Your task to perform on an android device: Set the phone to "Do not disturb". Image 0: 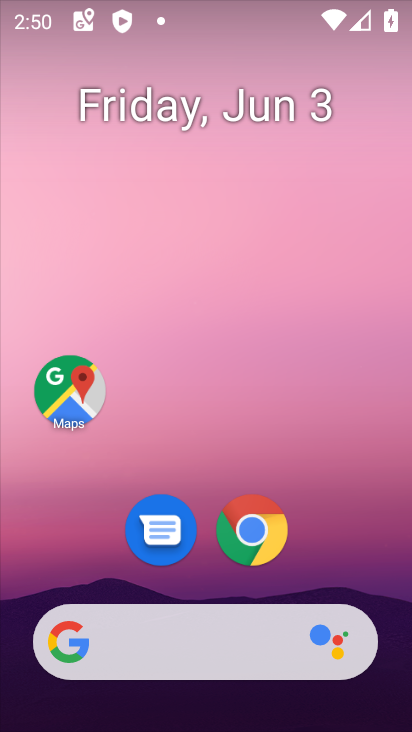
Step 0: drag from (357, 514) to (178, 64)
Your task to perform on an android device: Set the phone to "Do not disturb". Image 1: 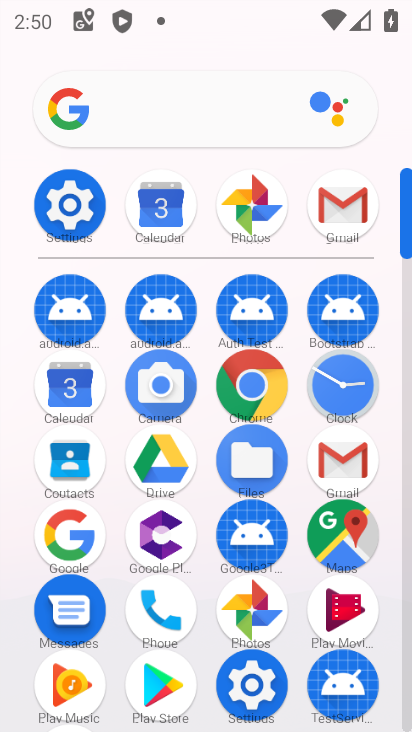
Step 1: click (62, 211)
Your task to perform on an android device: Set the phone to "Do not disturb". Image 2: 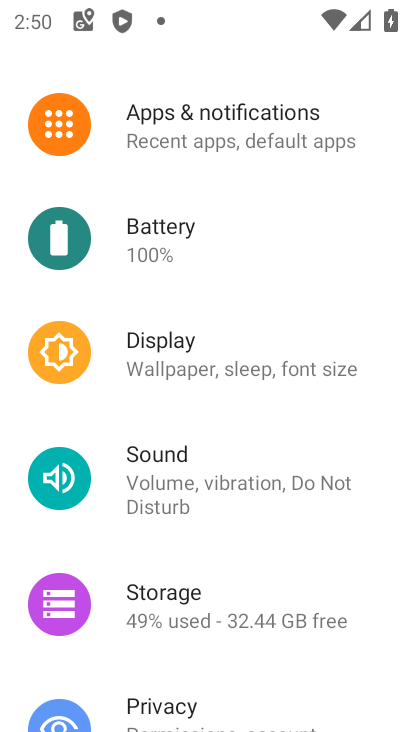
Step 2: click (159, 465)
Your task to perform on an android device: Set the phone to "Do not disturb". Image 3: 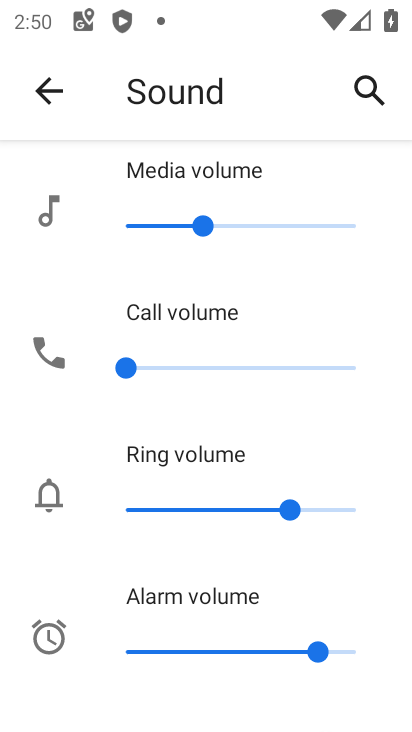
Step 3: drag from (218, 541) to (217, 369)
Your task to perform on an android device: Set the phone to "Do not disturb". Image 4: 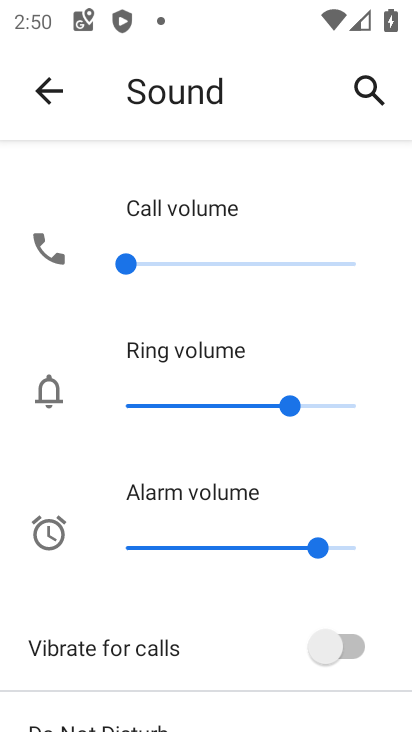
Step 4: click (213, 370)
Your task to perform on an android device: Set the phone to "Do not disturb". Image 5: 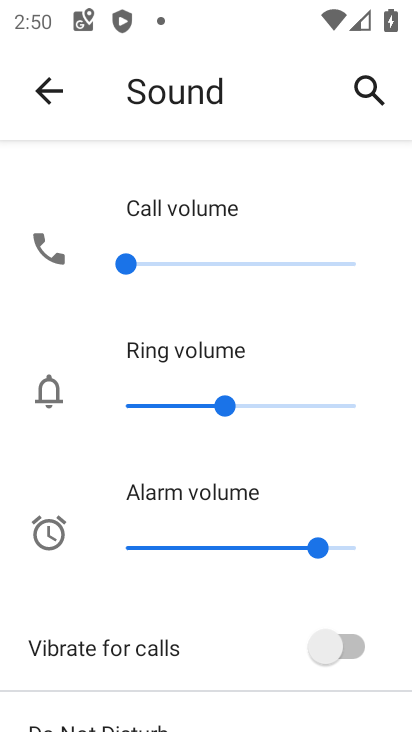
Step 5: drag from (179, 562) to (172, 392)
Your task to perform on an android device: Set the phone to "Do not disturb". Image 6: 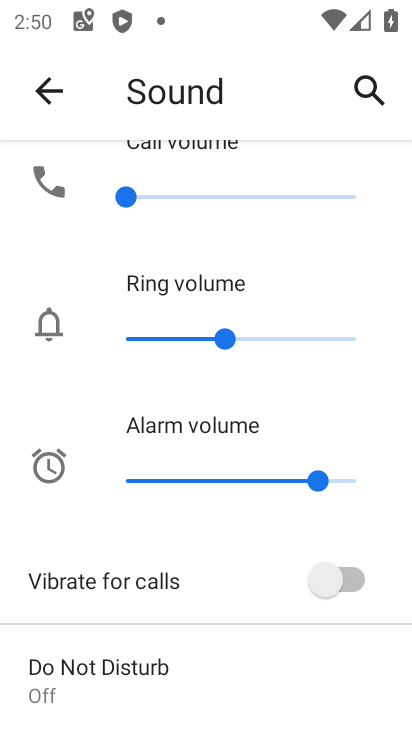
Step 6: click (223, 334)
Your task to perform on an android device: Set the phone to "Do not disturb". Image 7: 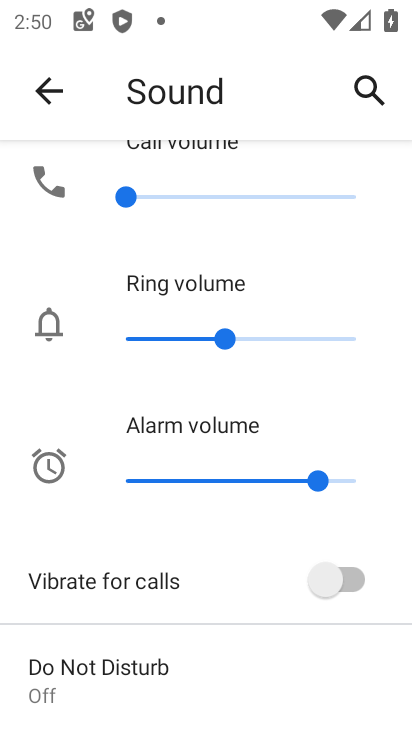
Step 7: click (73, 667)
Your task to perform on an android device: Set the phone to "Do not disturb". Image 8: 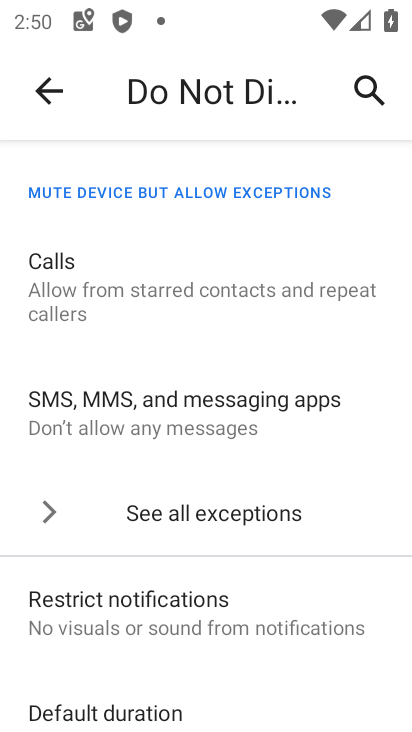
Step 8: drag from (223, 648) to (188, 343)
Your task to perform on an android device: Set the phone to "Do not disturb". Image 9: 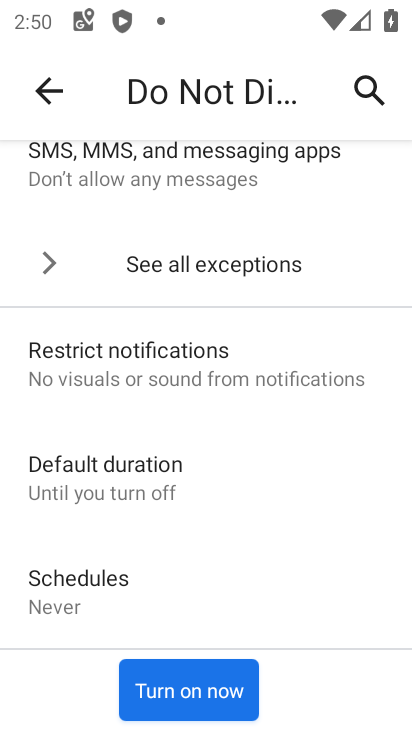
Step 9: click (182, 688)
Your task to perform on an android device: Set the phone to "Do not disturb". Image 10: 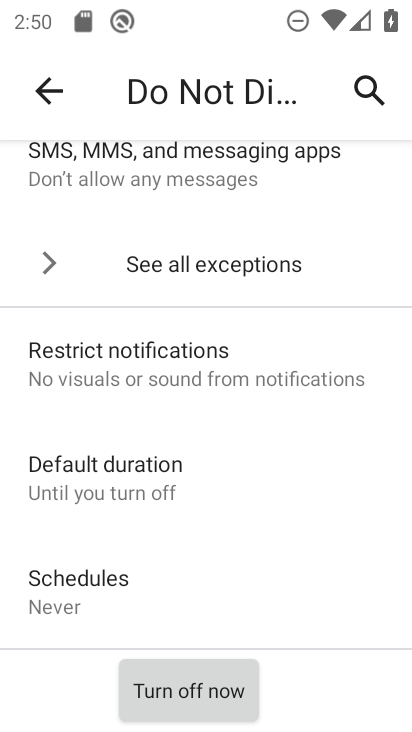
Step 10: task complete